Your task to perform on an android device: Open maps Image 0: 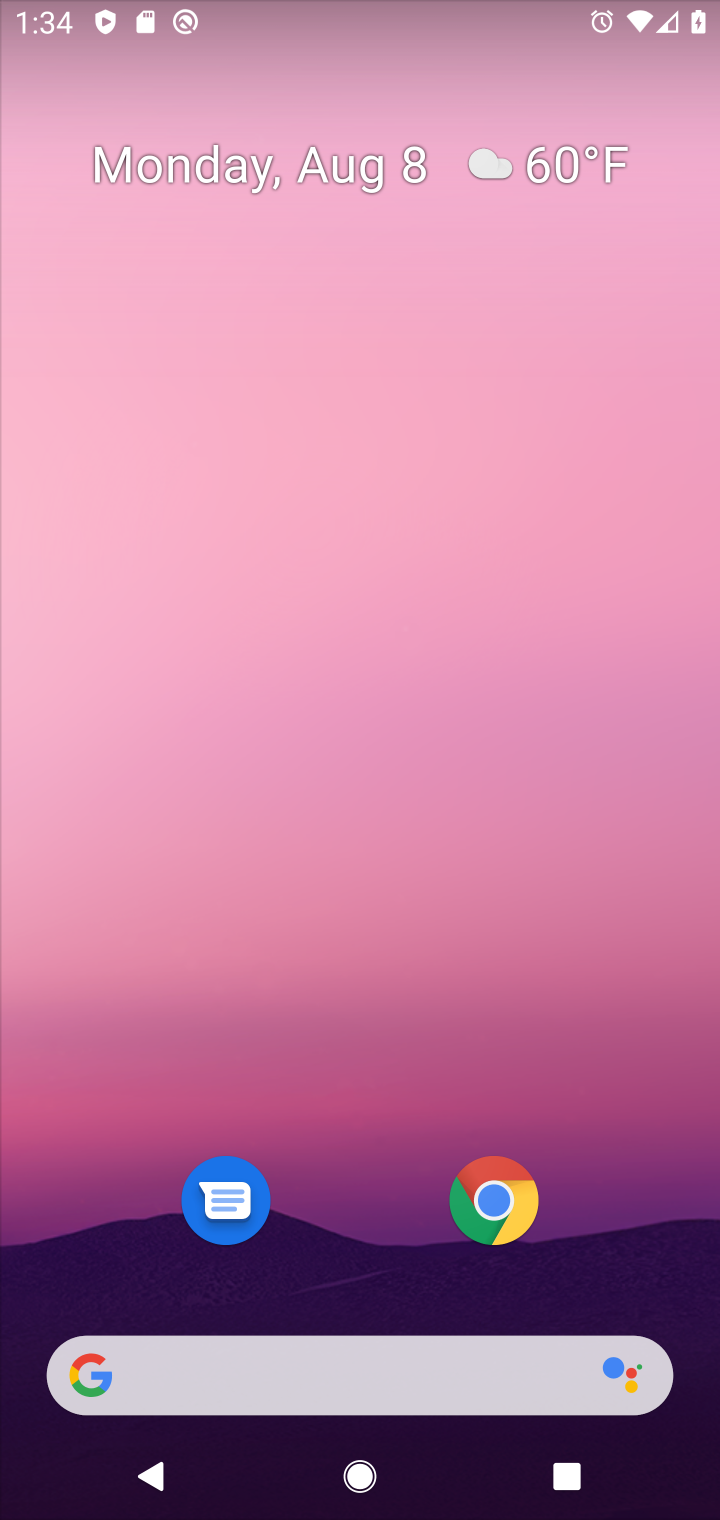
Step 0: press home button
Your task to perform on an android device: Open maps Image 1: 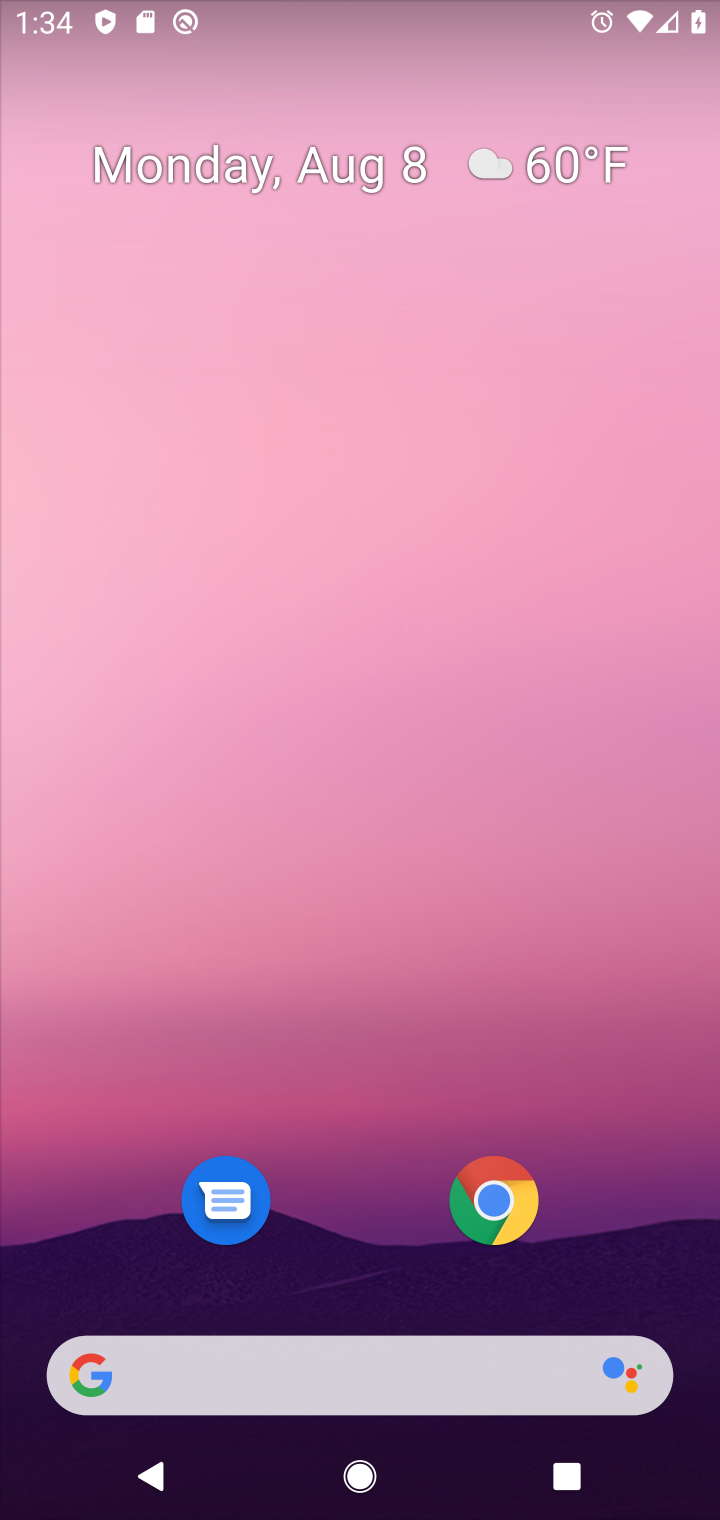
Step 1: press home button
Your task to perform on an android device: Open maps Image 2: 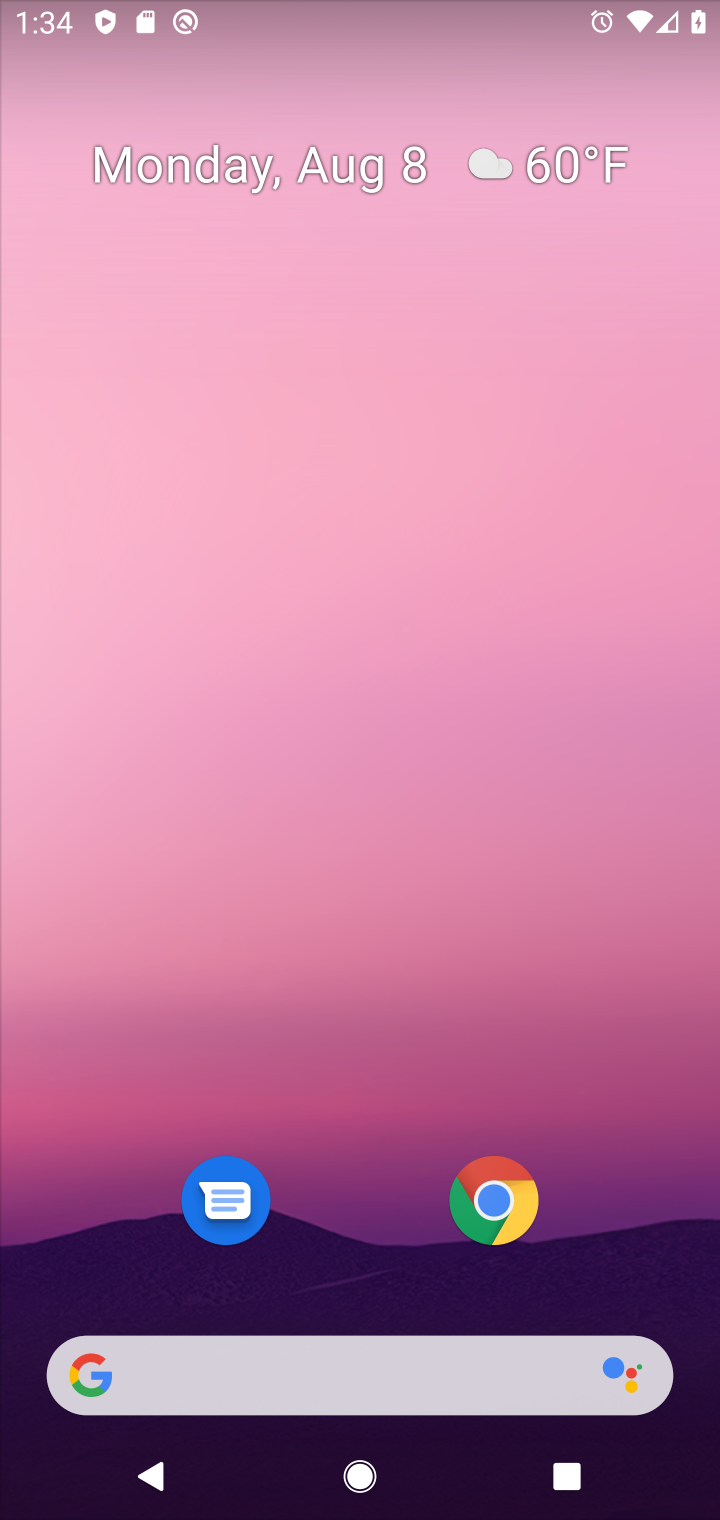
Step 2: drag from (367, 1275) to (437, 257)
Your task to perform on an android device: Open maps Image 3: 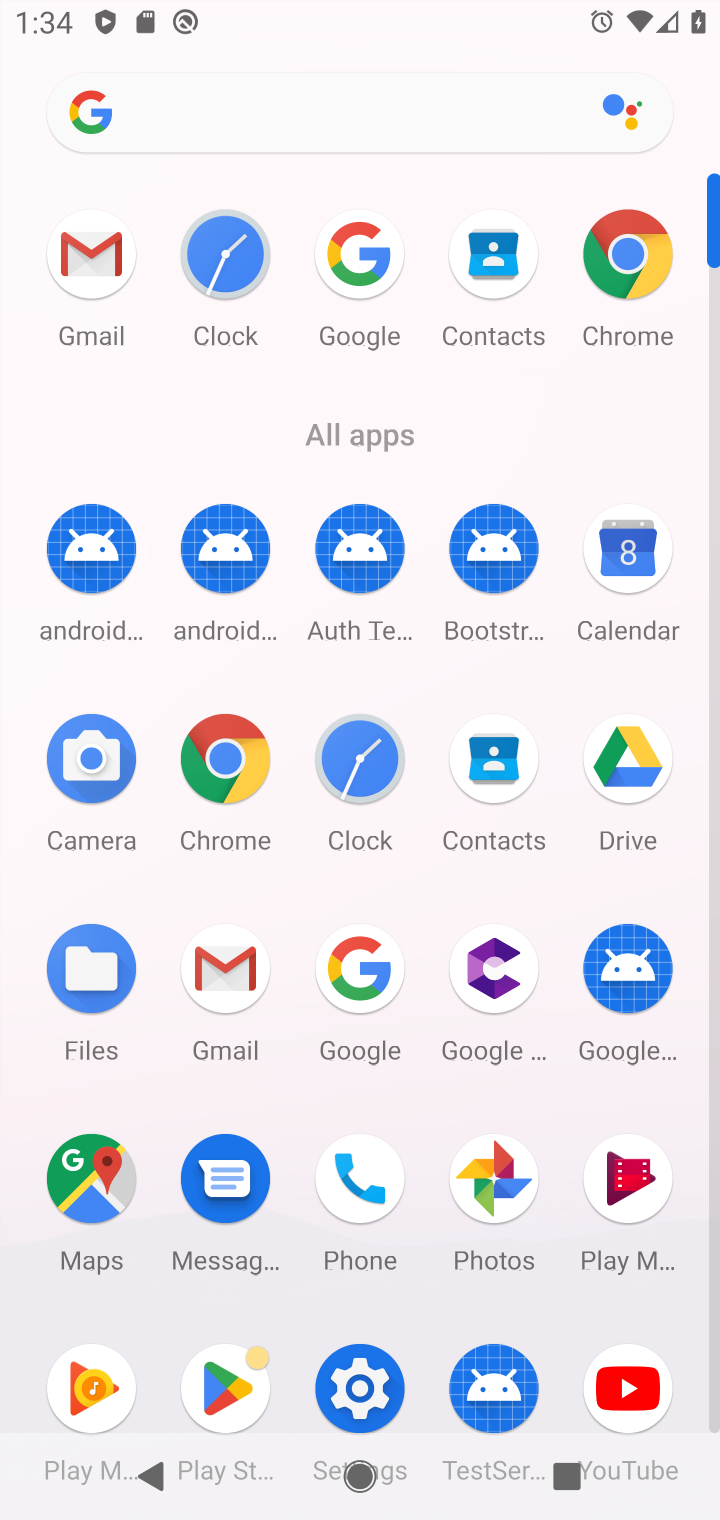
Step 3: click (356, 760)
Your task to perform on an android device: Open maps Image 4: 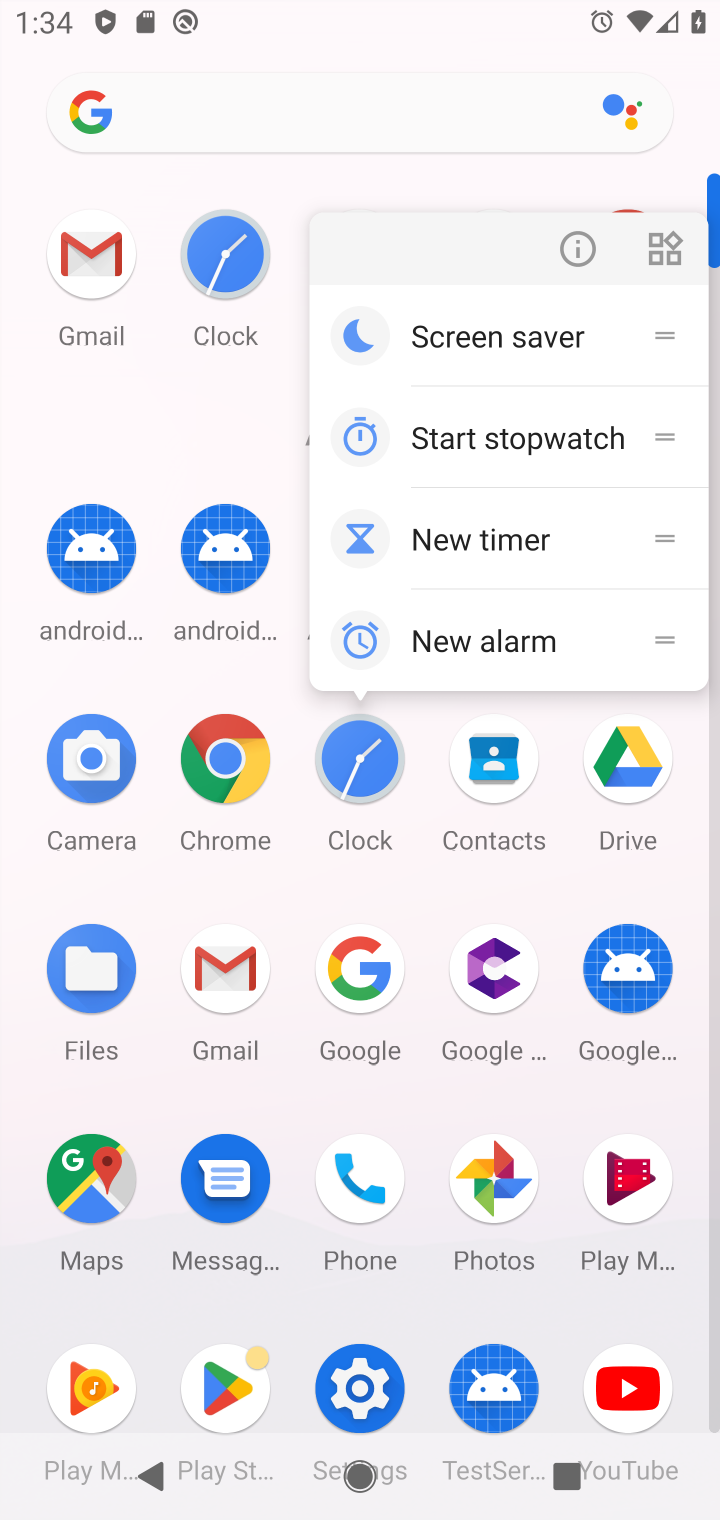
Step 4: click (383, 768)
Your task to perform on an android device: Open maps Image 5: 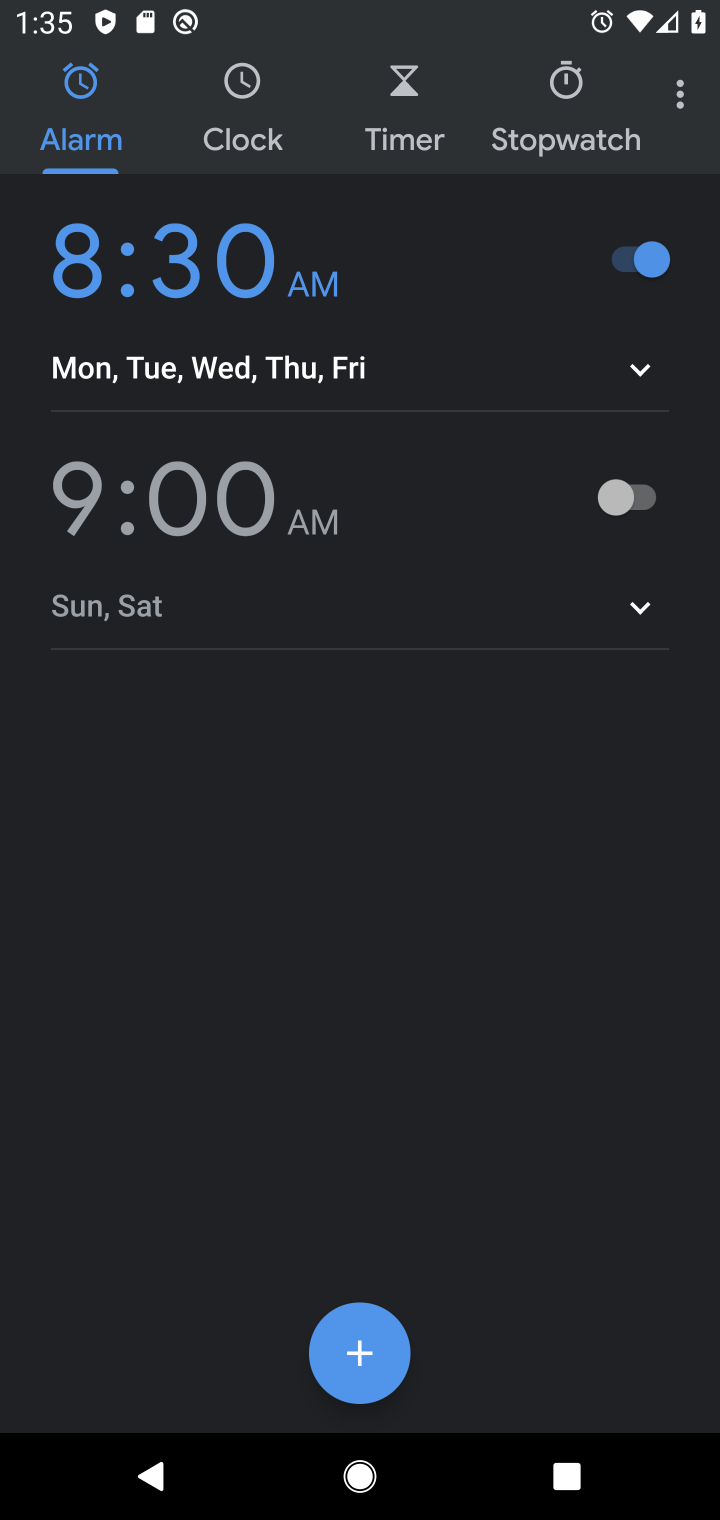
Step 5: click (707, 81)
Your task to perform on an android device: Open maps Image 6: 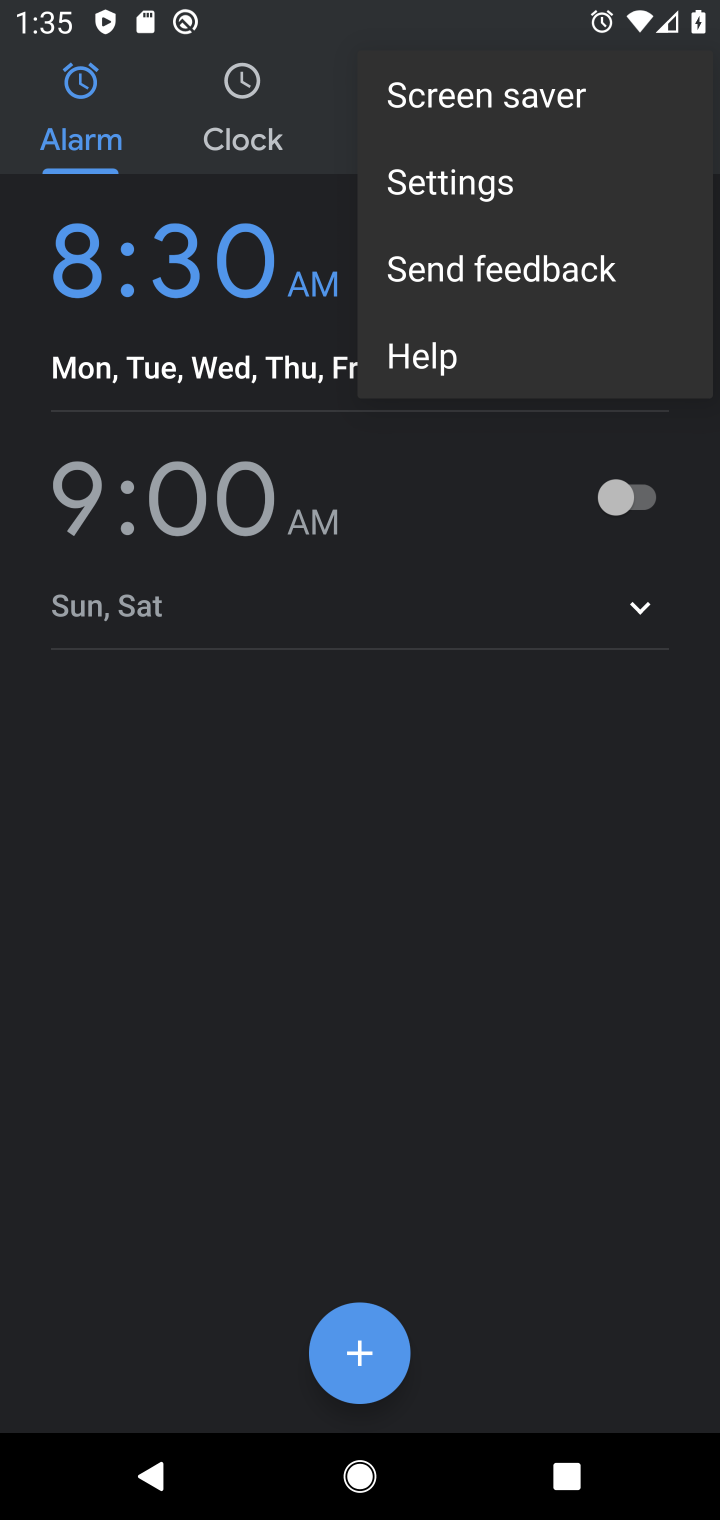
Step 6: press home button
Your task to perform on an android device: Open maps Image 7: 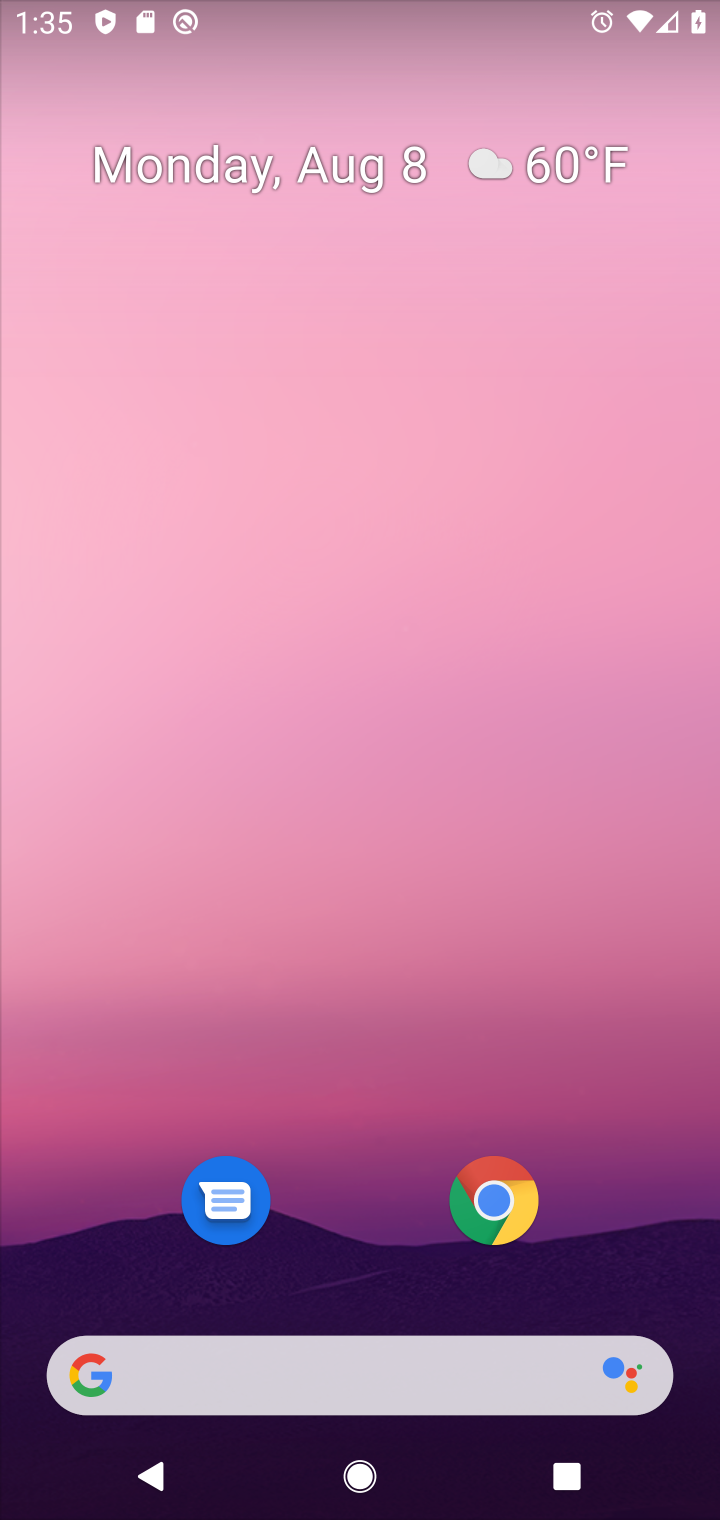
Step 7: drag from (395, 1231) to (444, 289)
Your task to perform on an android device: Open maps Image 8: 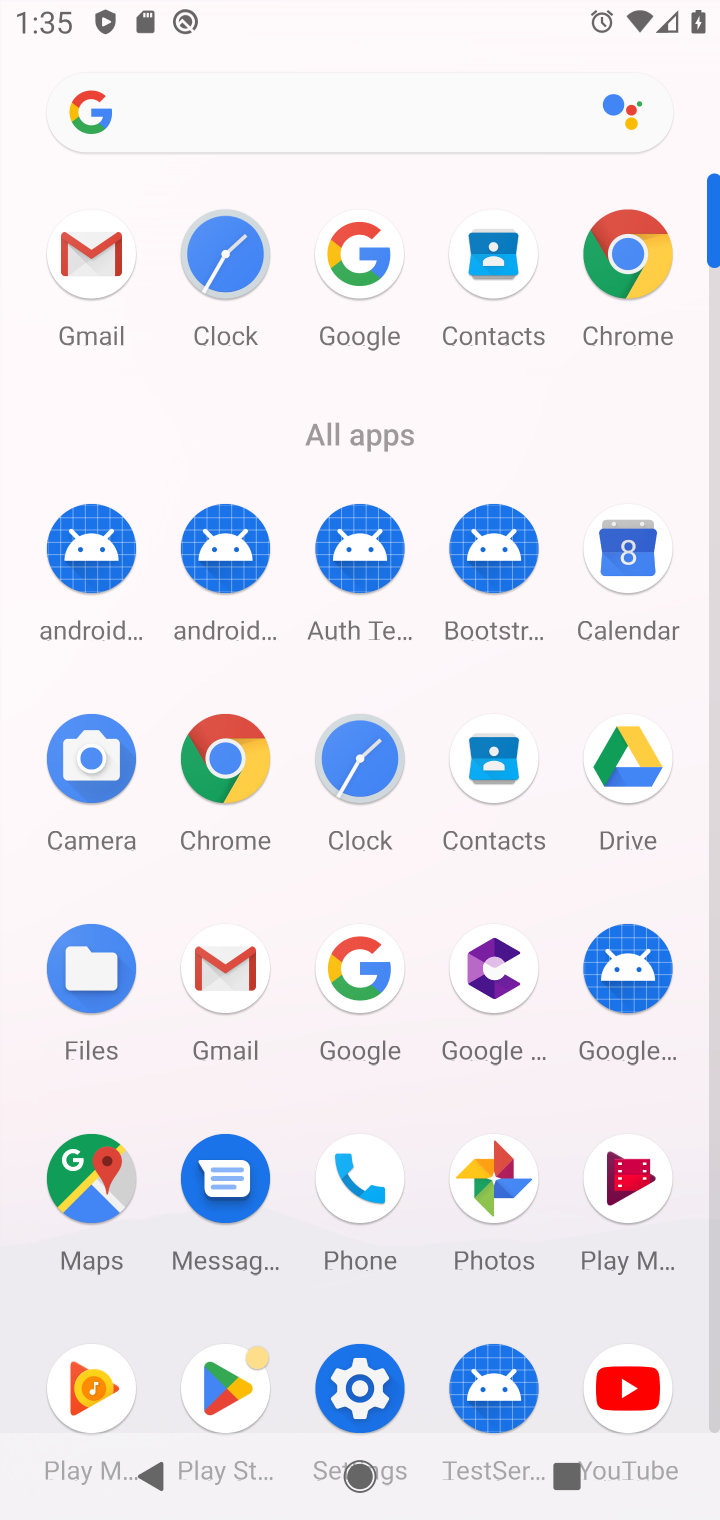
Step 8: click (67, 1150)
Your task to perform on an android device: Open maps Image 9: 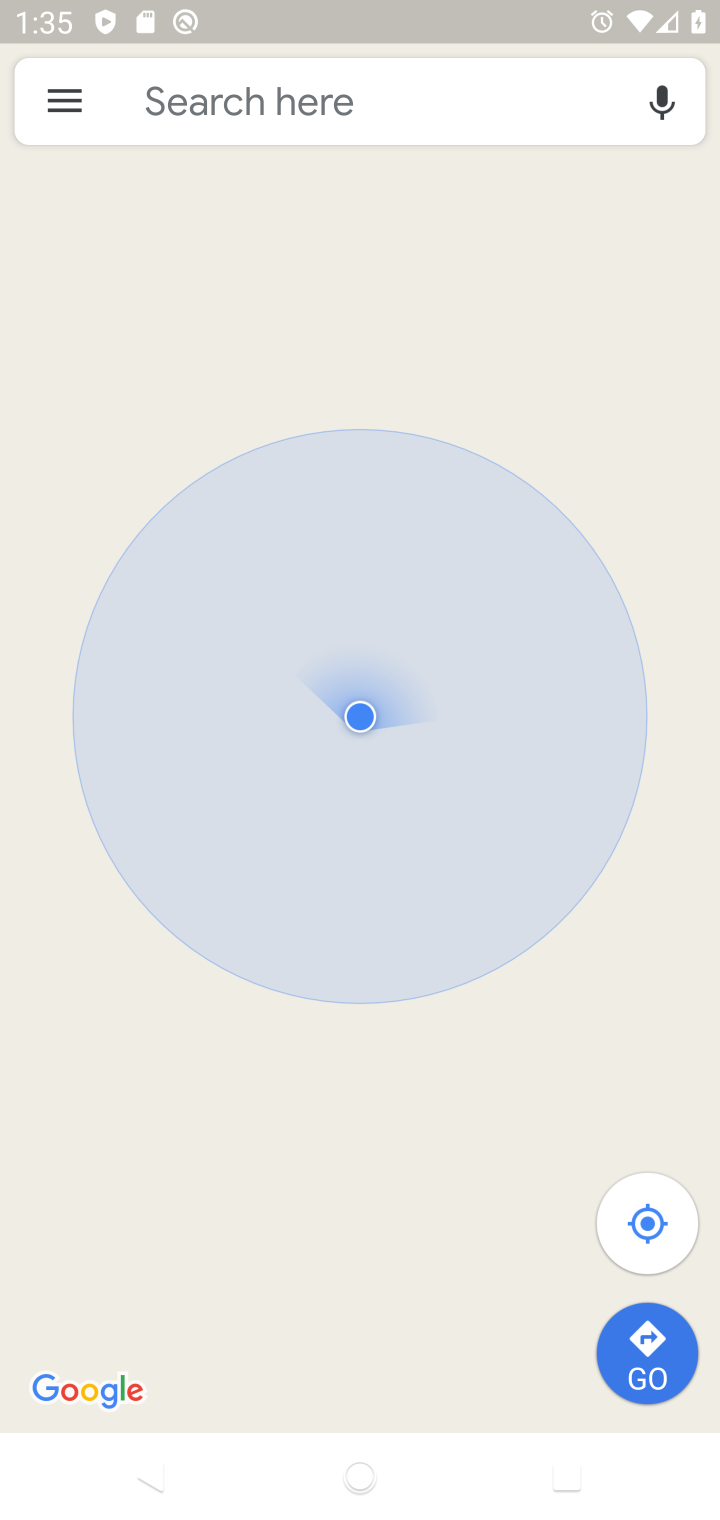
Step 9: task complete